Your task to perform on an android device: turn off translation in the chrome app Image 0: 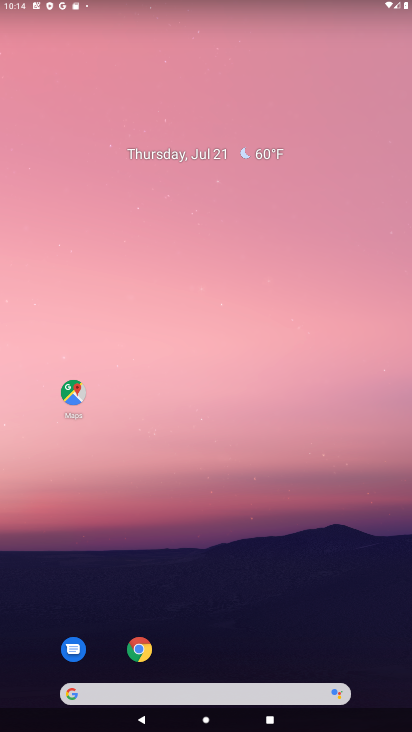
Step 0: click (142, 650)
Your task to perform on an android device: turn off translation in the chrome app Image 1: 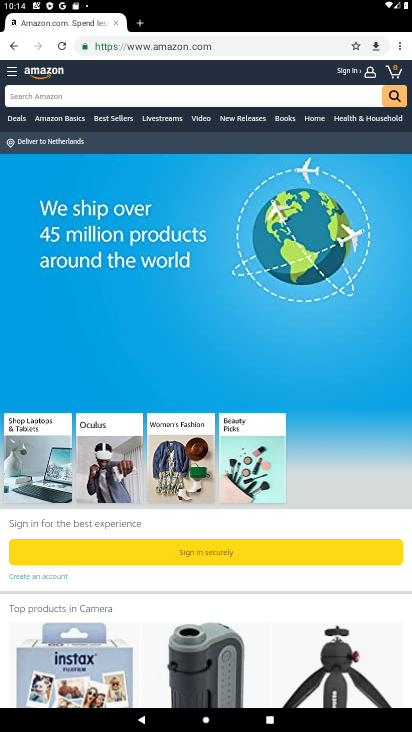
Step 1: click (400, 47)
Your task to perform on an android device: turn off translation in the chrome app Image 2: 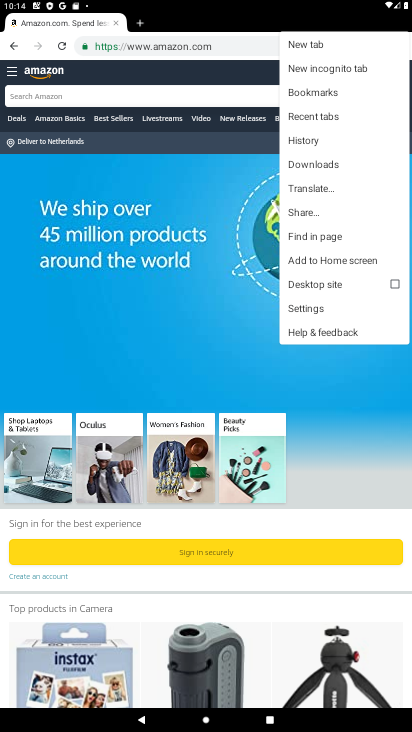
Step 2: click (309, 309)
Your task to perform on an android device: turn off translation in the chrome app Image 3: 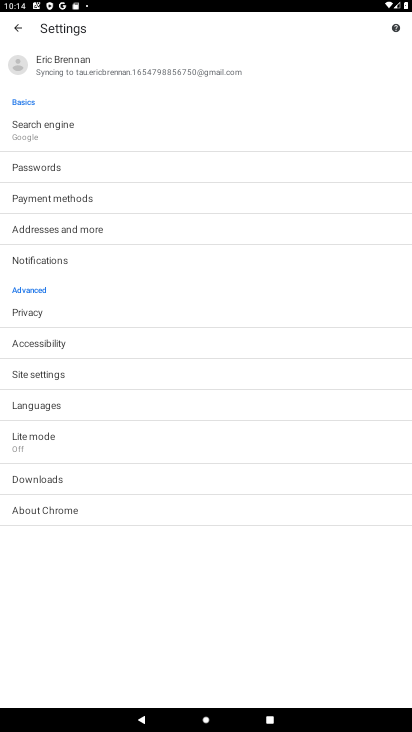
Step 3: click (52, 402)
Your task to perform on an android device: turn off translation in the chrome app Image 4: 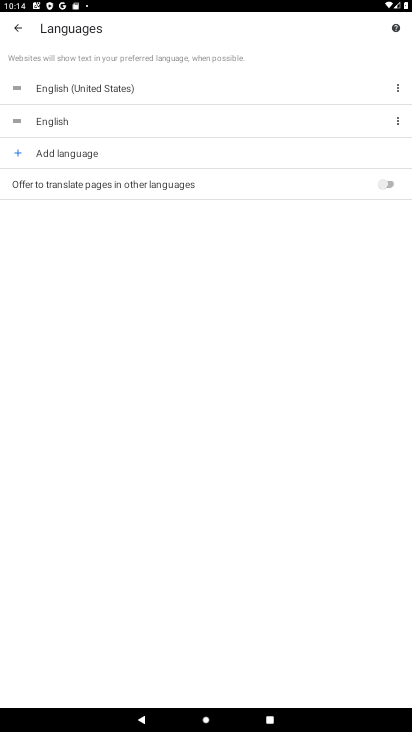
Step 4: task complete